Your task to perform on an android device: Open Google Chrome and click the shortcut for Amazon.com Image 0: 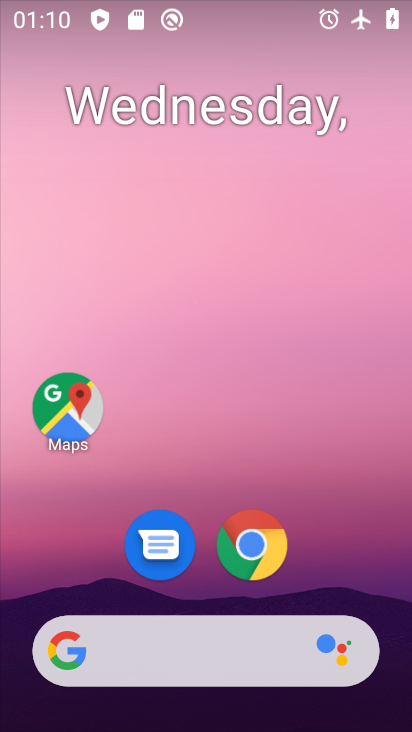
Step 0: click (257, 546)
Your task to perform on an android device: Open Google Chrome and click the shortcut for Amazon.com Image 1: 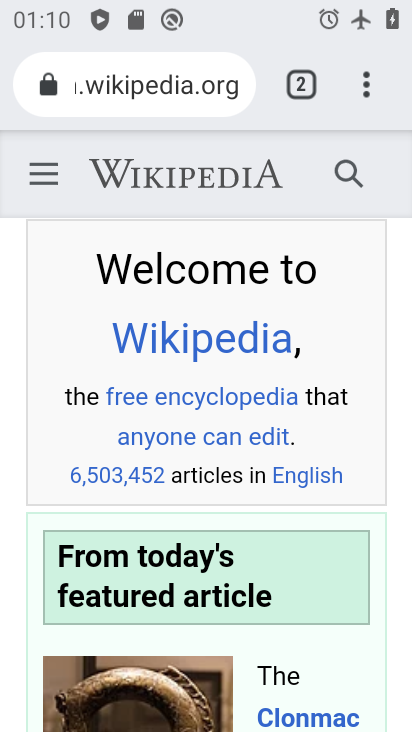
Step 1: drag from (367, 85) to (230, 161)
Your task to perform on an android device: Open Google Chrome and click the shortcut for Amazon.com Image 2: 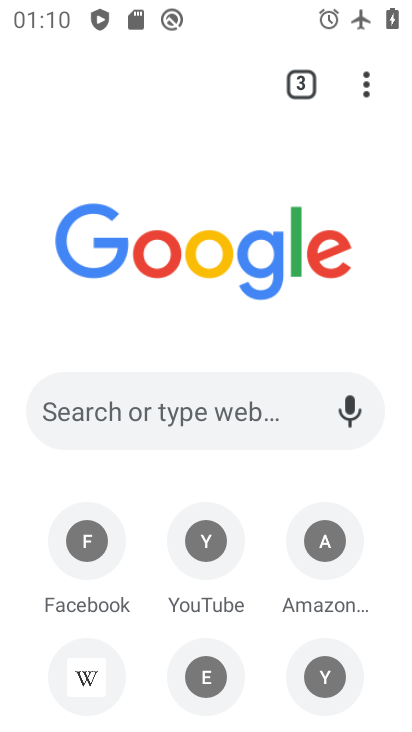
Step 2: click (321, 543)
Your task to perform on an android device: Open Google Chrome and click the shortcut for Amazon.com Image 3: 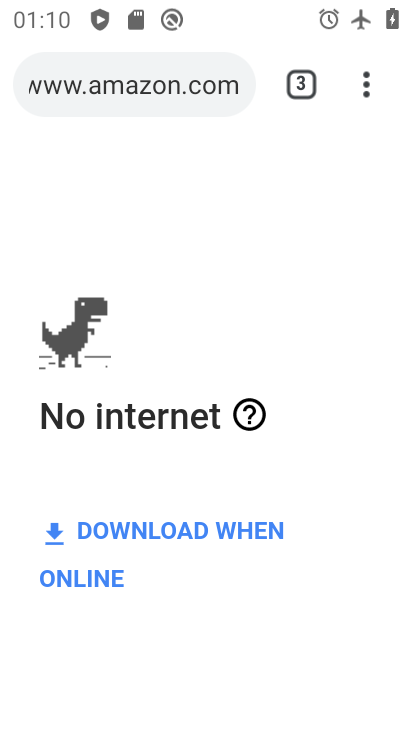
Step 3: task complete